Your task to perform on an android device: toggle location history Image 0: 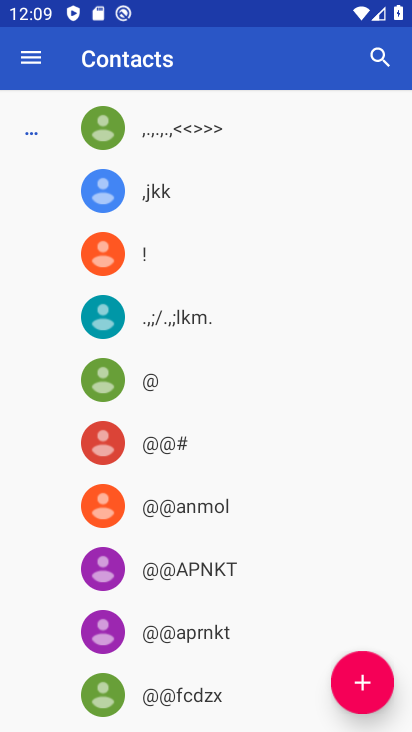
Step 0: press home button
Your task to perform on an android device: toggle location history Image 1: 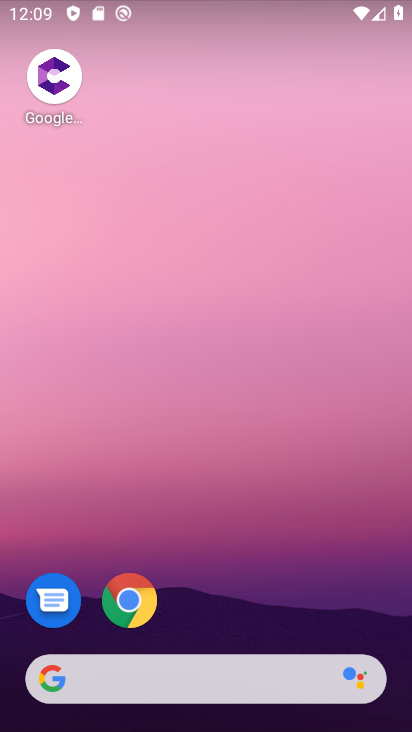
Step 1: drag from (229, 596) to (409, 138)
Your task to perform on an android device: toggle location history Image 2: 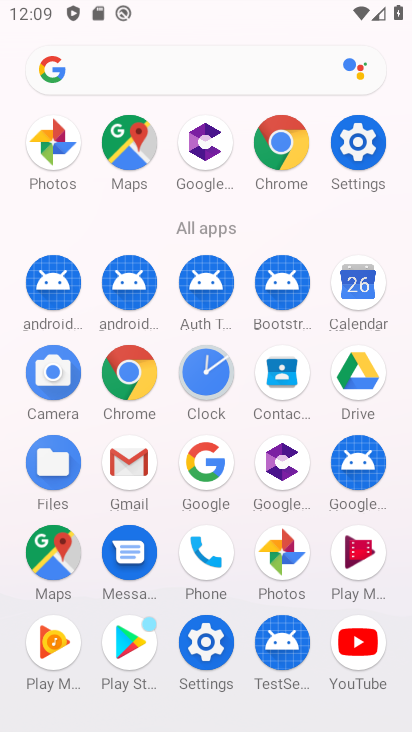
Step 2: drag from (184, 624) to (286, 400)
Your task to perform on an android device: toggle location history Image 3: 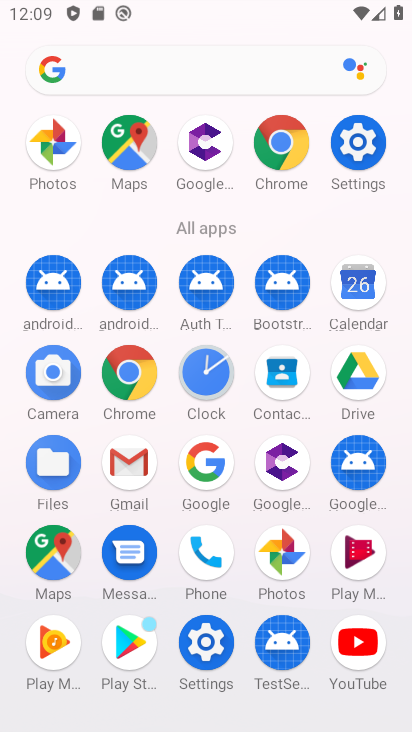
Step 3: click (229, 649)
Your task to perform on an android device: toggle location history Image 4: 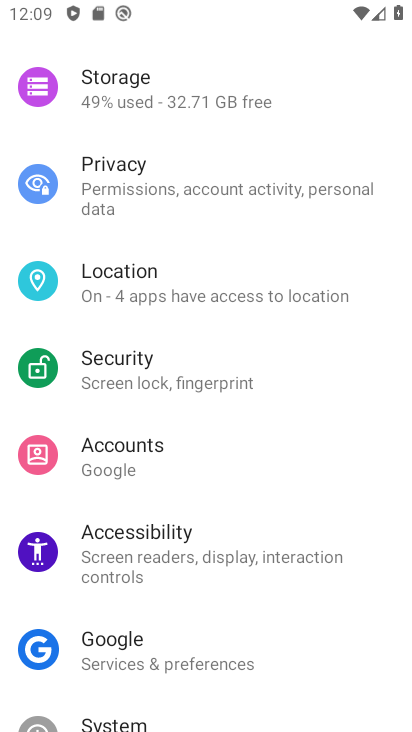
Step 4: click (192, 293)
Your task to perform on an android device: toggle location history Image 5: 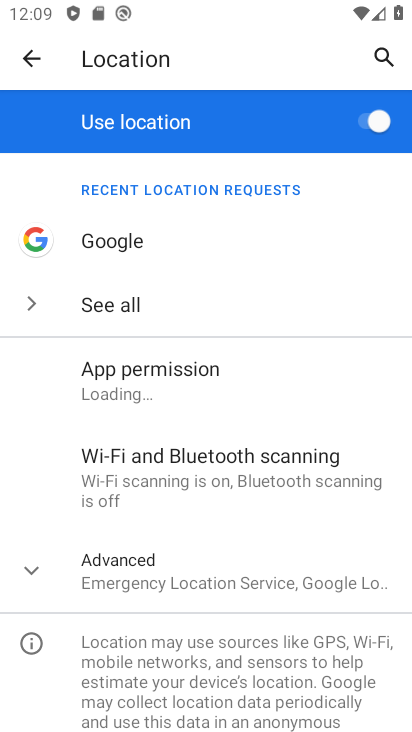
Step 5: click (218, 562)
Your task to perform on an android device: toggle location history Image 6: 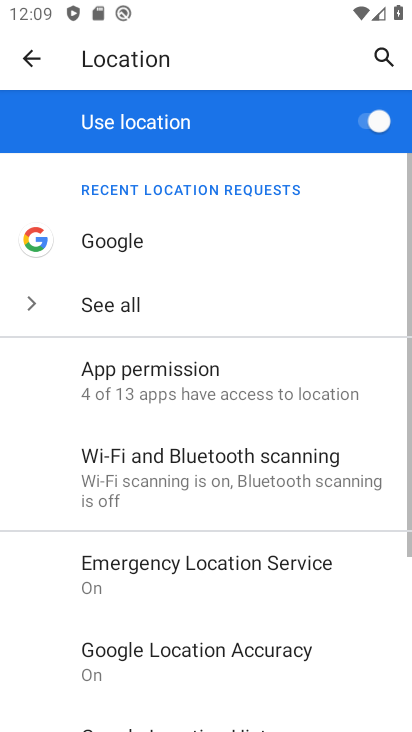
Step 6: drag from (264, 649) to (354, 388)
Your task to perform on an android device: toggle location history Image 7: 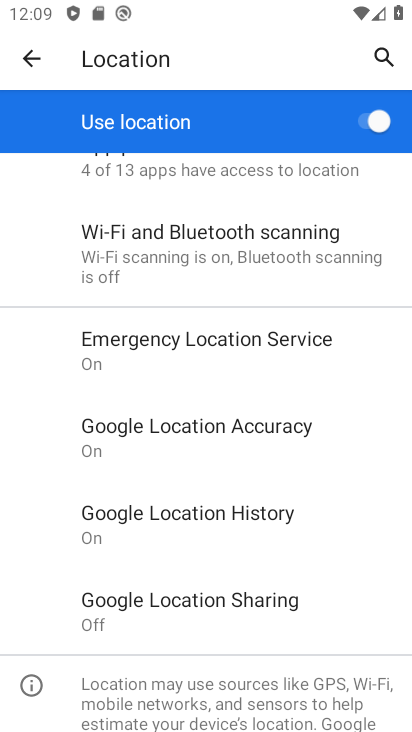
Step 7: click (248, 509)
Your task to perform on an android device: toggle location history Image 8: 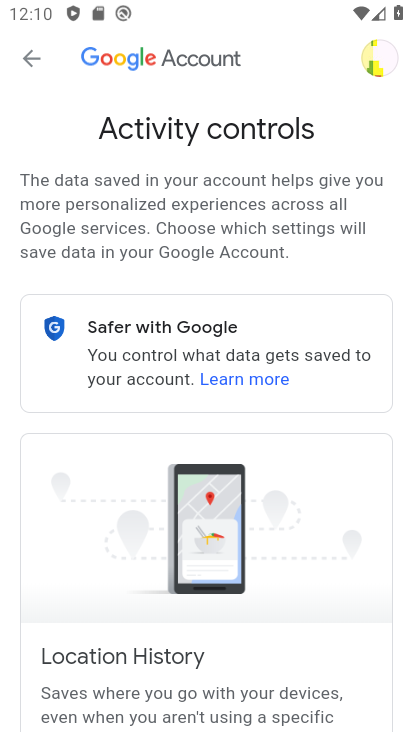
Step 8: drag from (193, 534) to (359, 43)
Your task to perform on an android device: toggle location history Image 9: 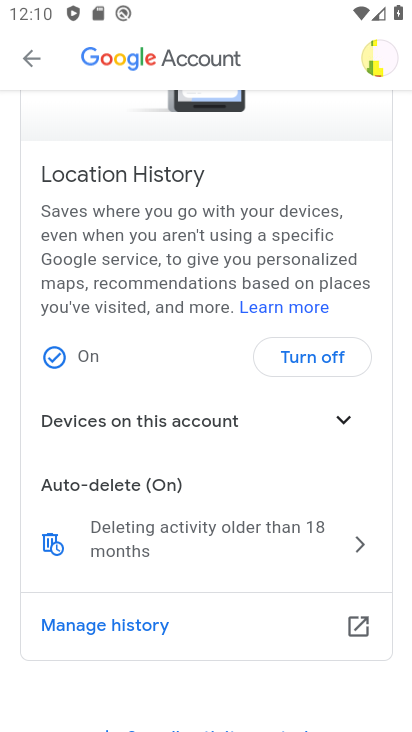
Step 9: click (338, 351)
Your task to perform on an android device: toggle location history Image 10: 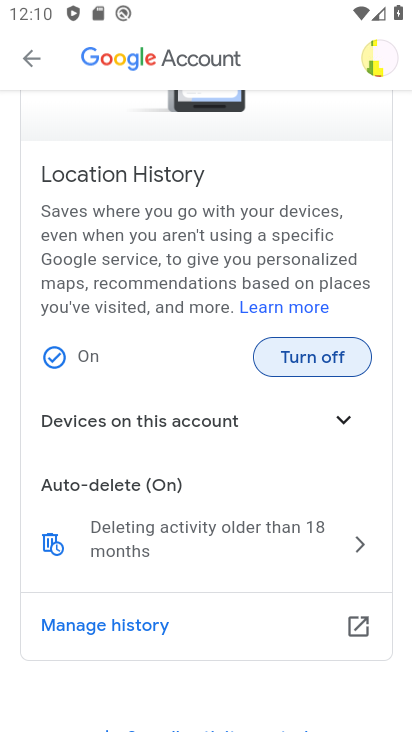
Step 10: click (336, 363)
Your task to perform on an android device: toggle location history Image 11: 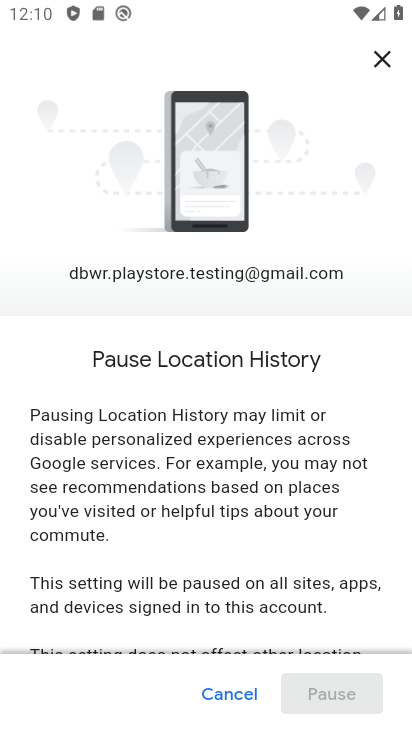
Step 11: drag from (171, 584) to (410, 420)
Your task to perform on an android device: toggle location history Image 12: 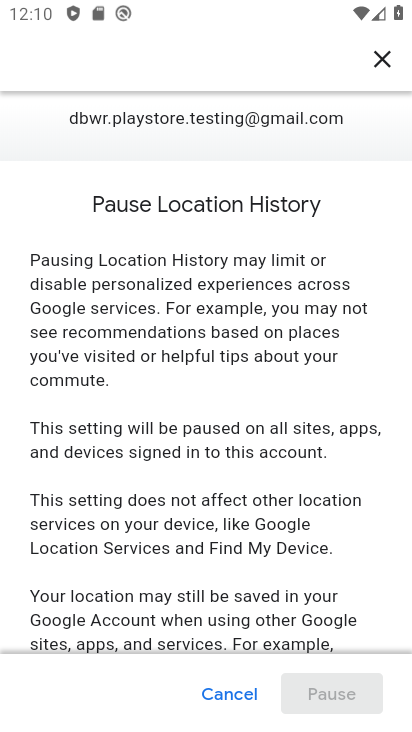
Step 12: drag from (223, 637) to (405, 704)
Your task to perform on an android device: toggle location history Image 13: 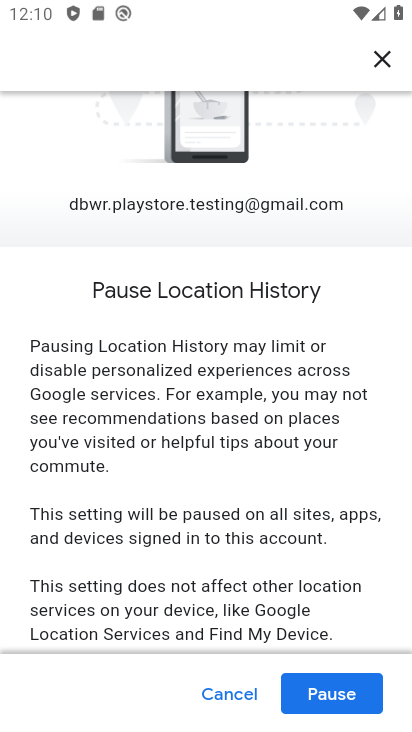
Step 13: click (339, 695)
Your task to perform on an android device: toggle location history Image 14: 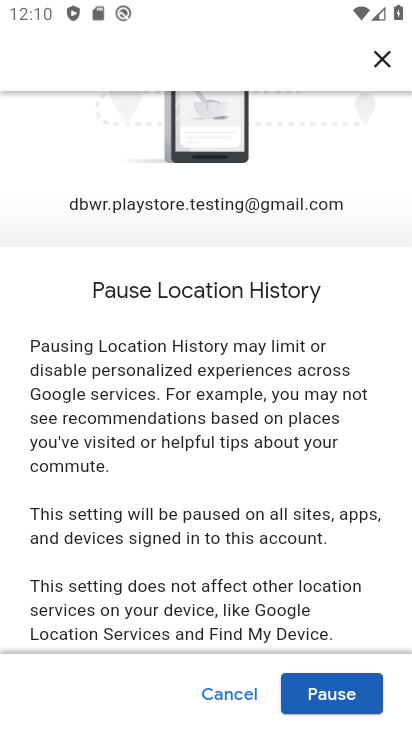
Step 14: click (340, 694)
Your task to perform on an android device: toggle location history Image 15: 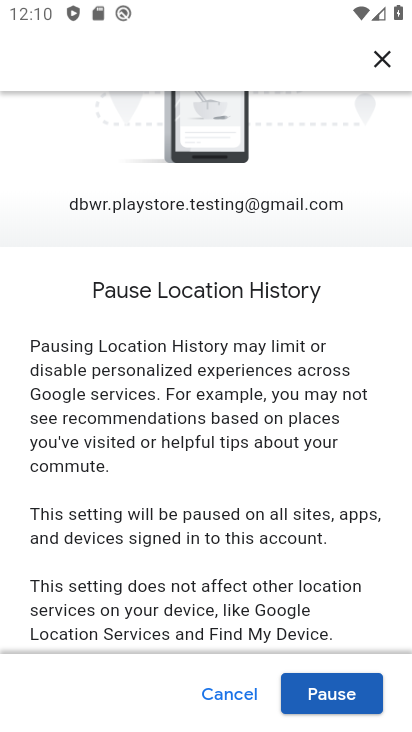
Step 15: click (338, 689)
Your task to perform on an android device: toggle location history Image 16: 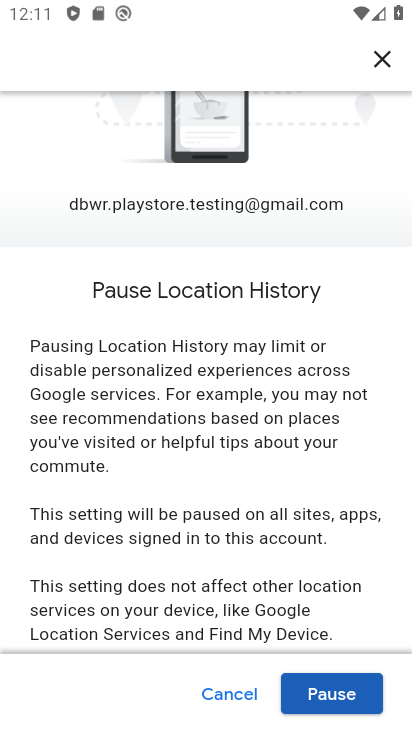
Step 16: click (344, 697)
Your task to perform on an android device: toggle location history Image 17: 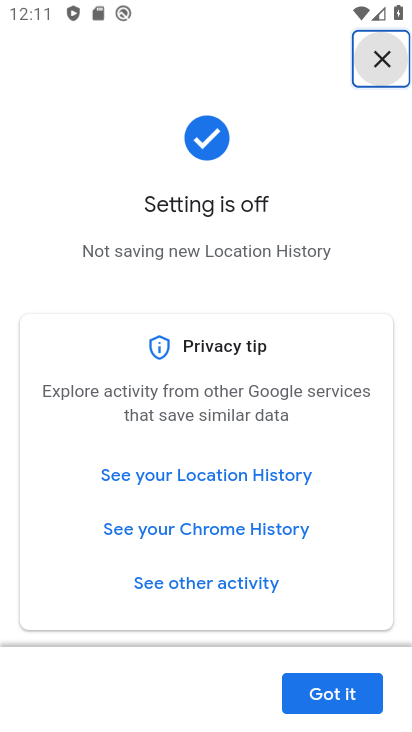
Step 17: click (345, 700)
Your task to perform on an android device: toggle location history Image 18: 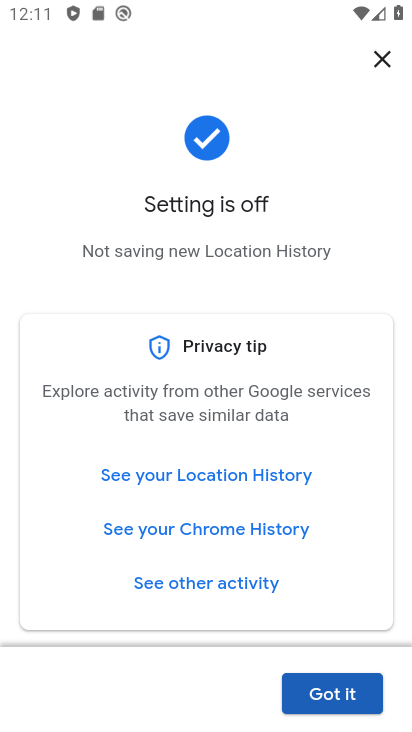
Step 18: click (343, 710)
Your task to perform on an android device: toggle location history Image 19: 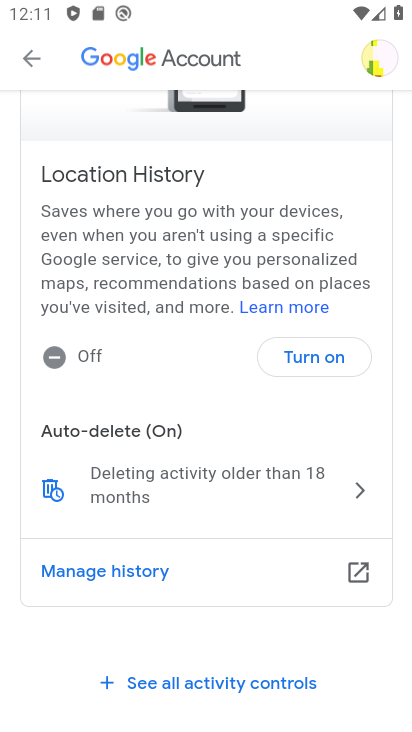
Step 19: task complete